Your task to perform on an android device: Is it going to rain this weekend? Image 0: 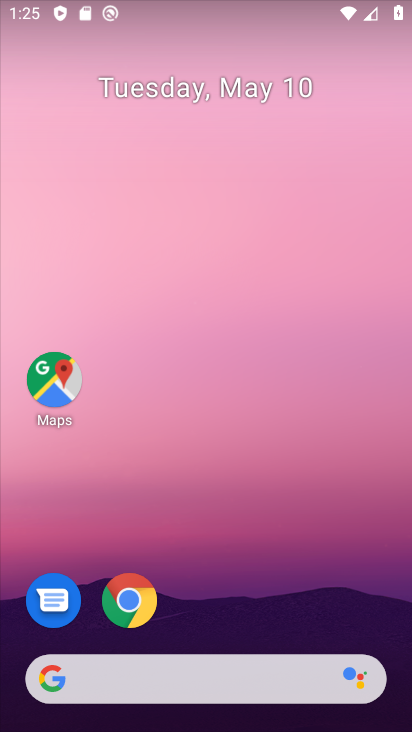
Step 0: drag from (274, 534) to (258, 0)
Your task to perform on an android device: Is it going to rain this weekend? Image 1: 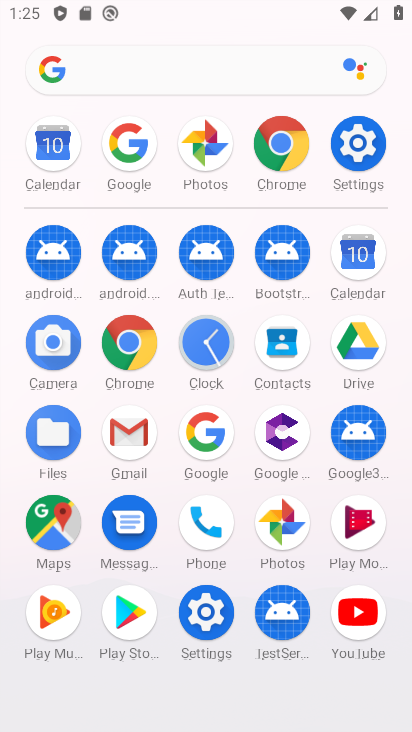
Step 1: click (201, 451)
Your task to perform on an android device: Is it going to rain this weekend? Image 2: 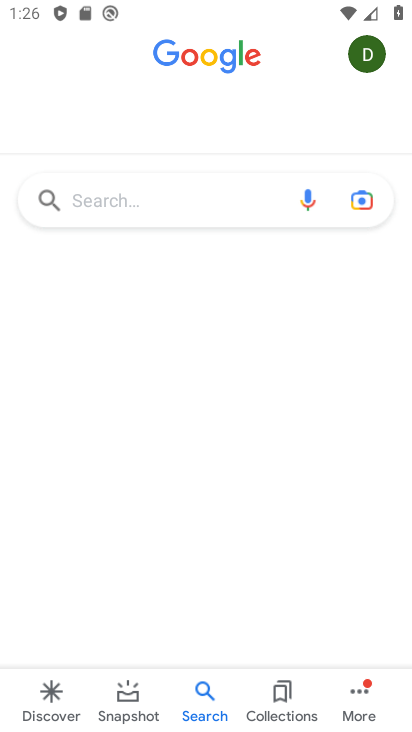
Step 2: click (135, 194)
Your task to perform on an android device: Is it going to rain this weekend? Image 3: 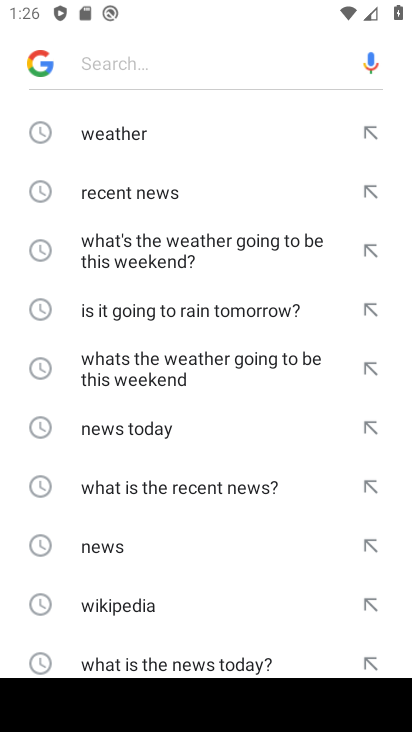
Step 3: click (218, 136)
Your task to perform on an android device: Is it going to rain this weekend? Image 4: 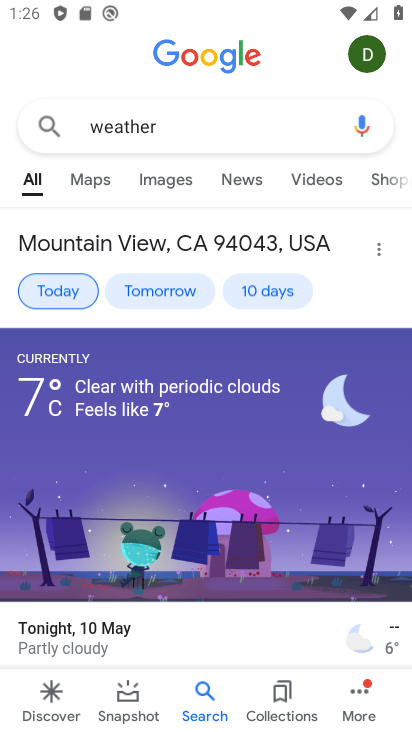
Step 4: task complete